Your task to perform on an android device: Go to notification settings Image 0: 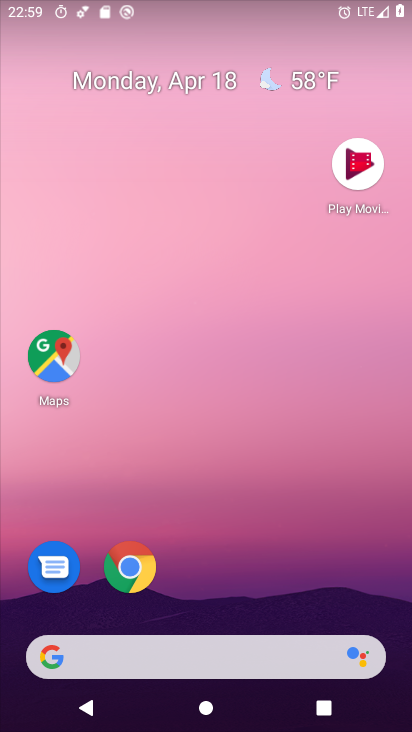
Step 0: drag from (187, 624) to (213, 190)
Your task to perform on an android device: Go to notification settings Image 1: 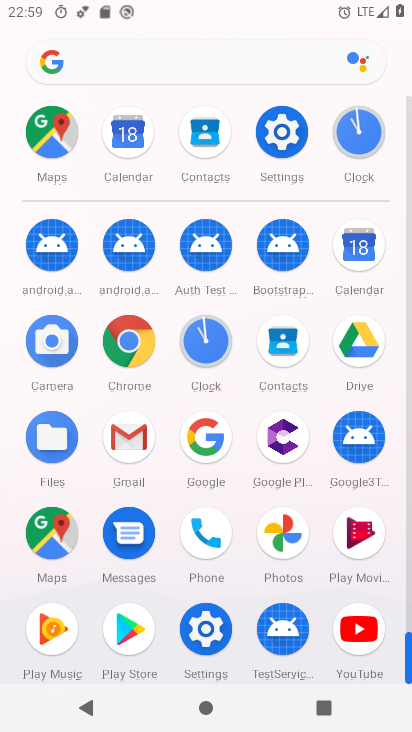
Step 1: drag from (179, 655) to (234, 79)
Your task to perform on an android device: Go to notification settings Image 2: 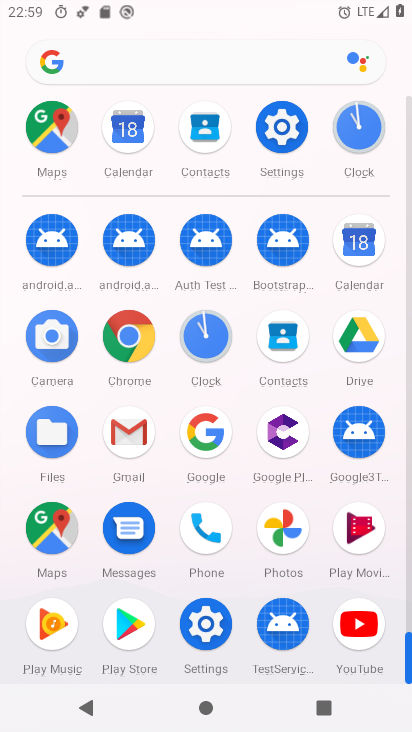
Step 2: click (205, 621)
Your task to perform on an android device: Go to notification settings Image 3: 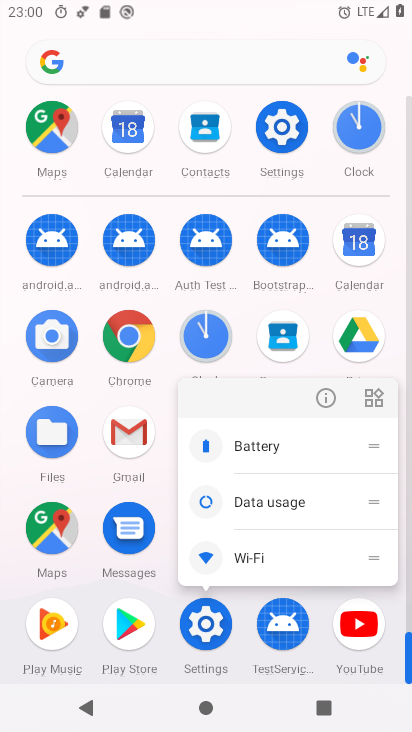
Step 3: click (329, 392)
Your task to perform on an android device: Go to notification settings Image 4: 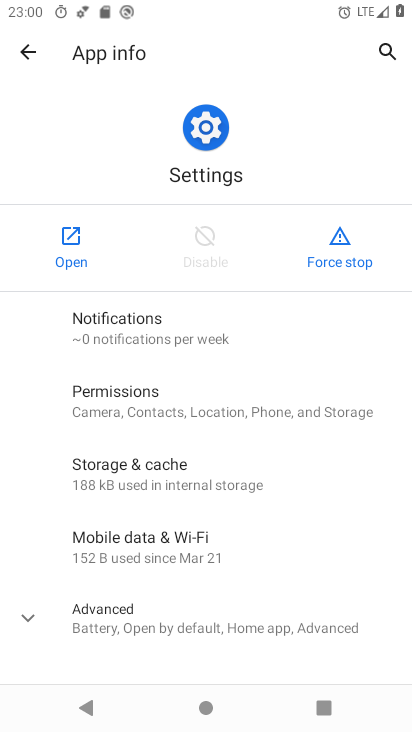
Step 4: click (71, 243)
Your task to perform on an android device: Go to notification settings Image 5: 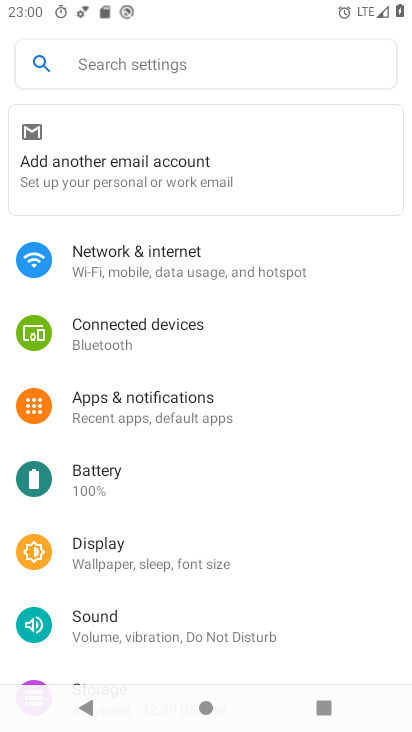
Step 5: click (160, 406)
Your task to perform on an android device: Go to notification settings Image 6: 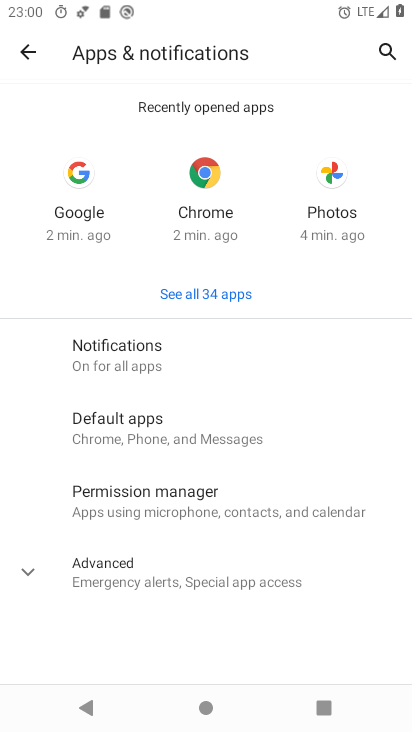
Step 6: click (211, 355)
Your task to perform on an android device: Go to notification settings Image 7: 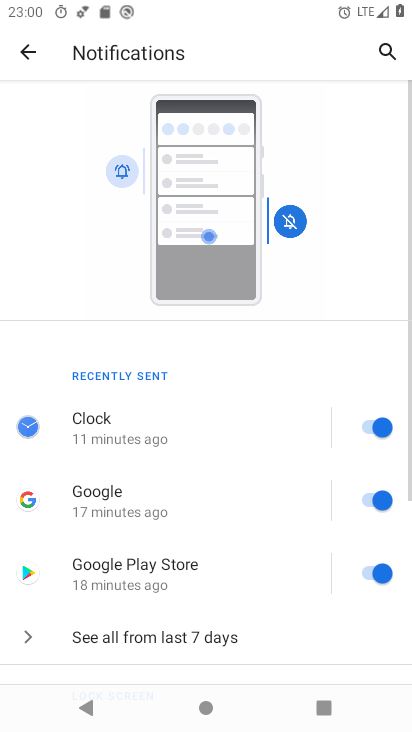
Step 7: task complete